Your task to perform on an android device: turn off notifications in google photos Image 0: 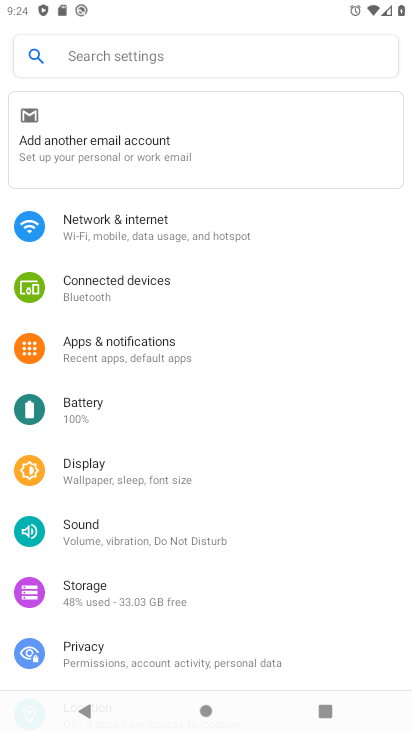
Step 0: press back button
Your task to perform on an android device: turn off notifications in google photos Image 1: 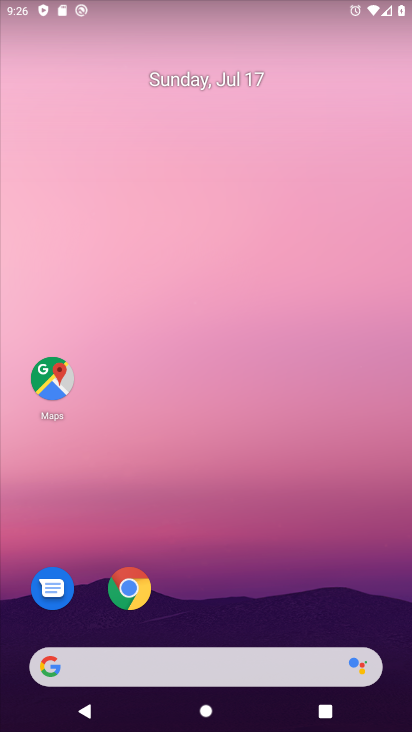
Step 1: drag from (274, 646) to (208, 139)
Your task to perform on an android device: turn off notifications in google photos Image 2: 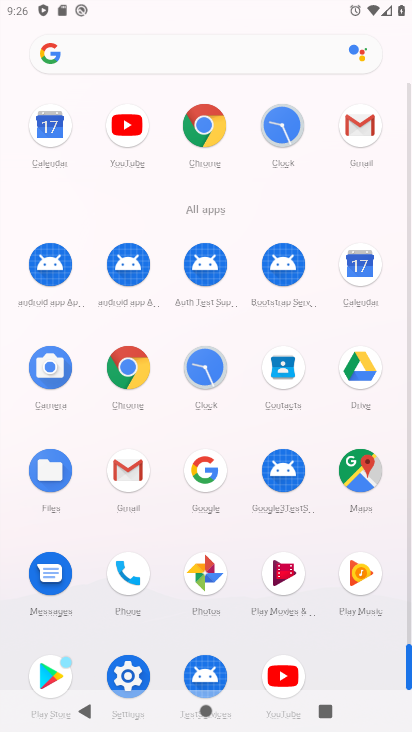
Step 2: click (126, 667)
Your task to perform on an android device: turn off notifications in google photos Image 3: 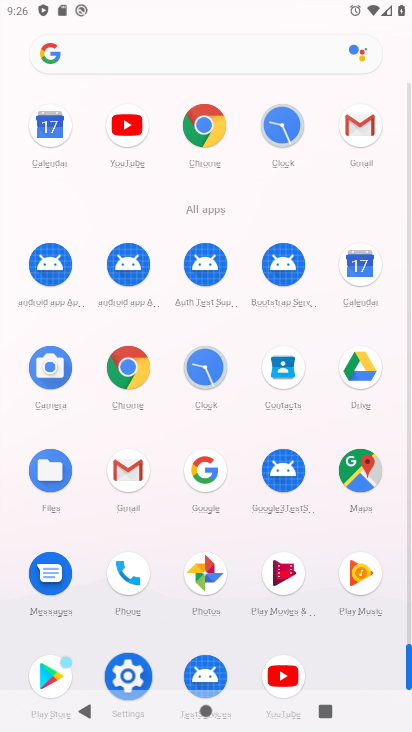
Step 3: click (125, 658)
Your task to perform on an android device: turn off notifications in google photos Image 4: 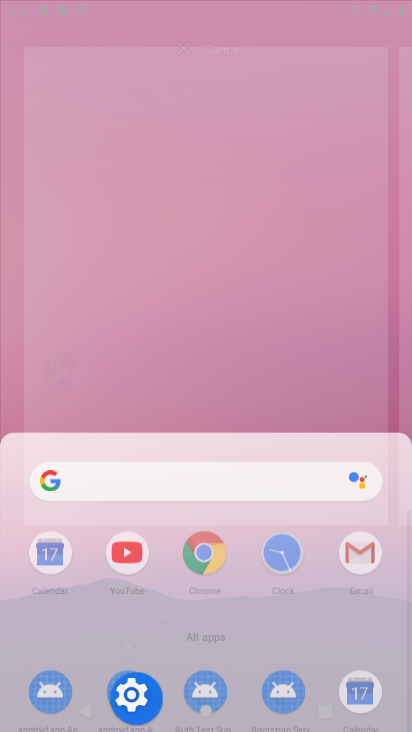
Step 4: click (121, 665)
Your task to perform on an android device: turn off notifications in google photos Image 5: 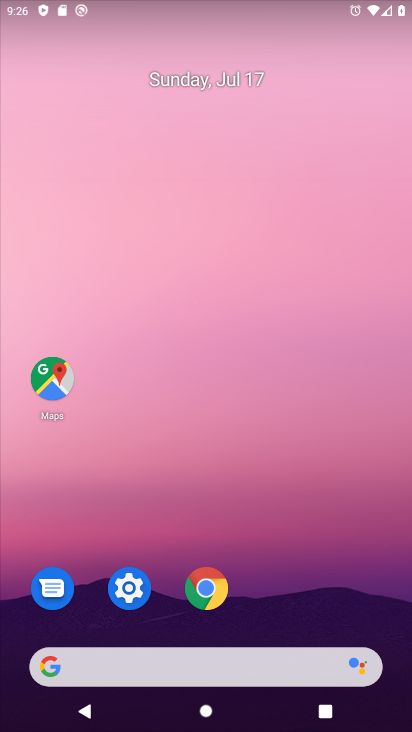
Step 5: drag from (273, 696) to (247, 9)
Your task to perform on an android device: turn off notifications in google photos Image 6: 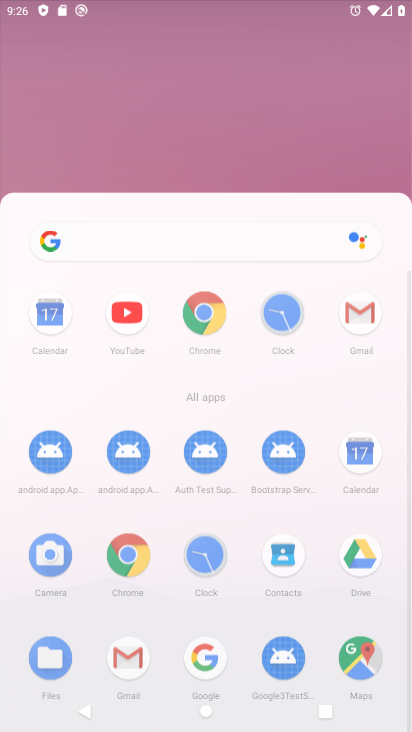
Step 6: drag from (285, 464) to (243, 63)
Your task to perform on an android device: turn off notifications in google photos Image 7: 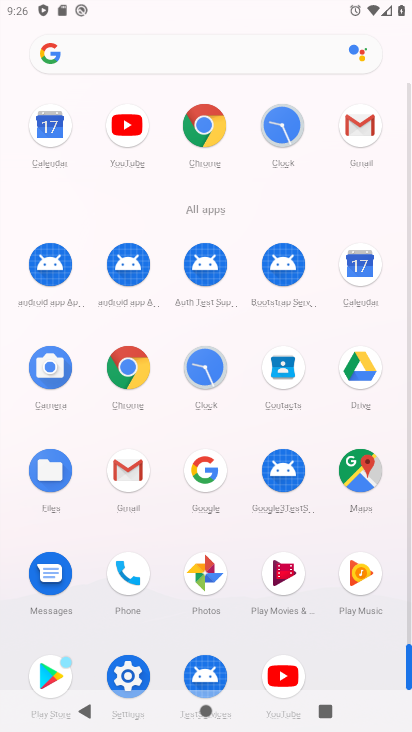
Step 7: drag from (266, 397) to (253, 146)
Your task to perform on an android device: turn off notifications in google photos Image 8: 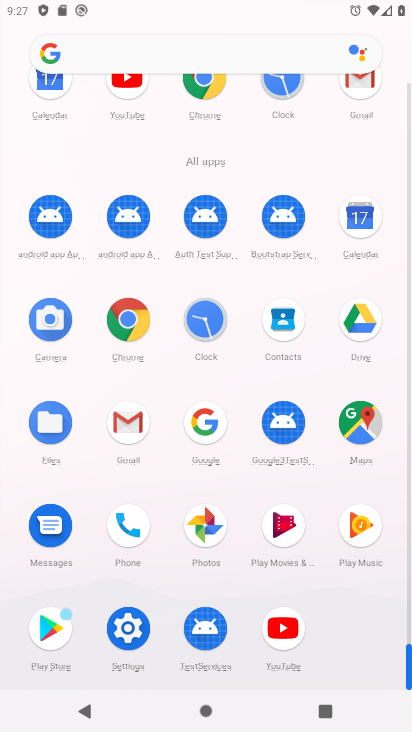
Step 8: click (192, 538)
Your task to perform on an android device: turn off notifications in google photos Image 9: 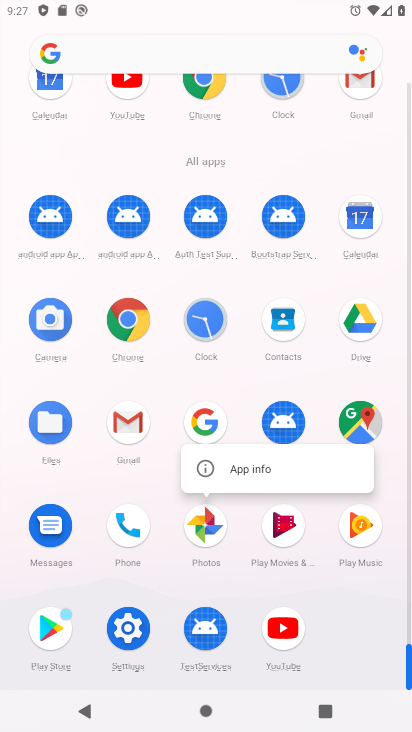
Step 9: click (194, 539)
Your task to perform on an android device: turn off notifications in google photos Image 10: 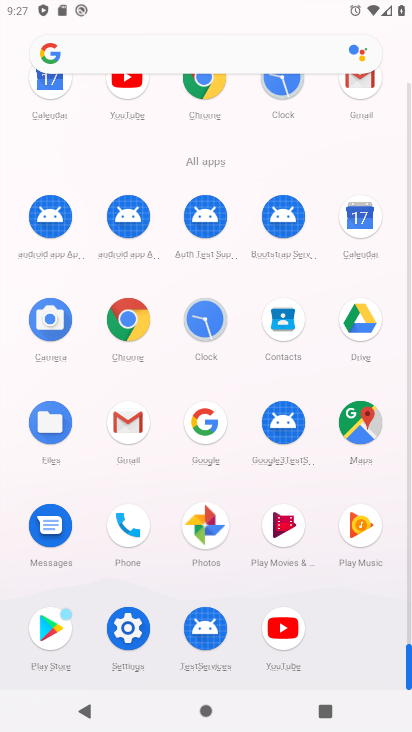
Step 10: click (199, 541)
Your task to perform on an android device: turn off notifications in google photos Image 11: 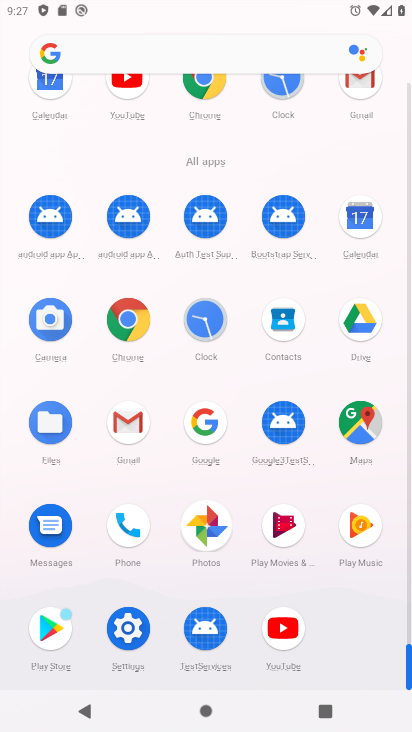
Step 11: click (199, 541)
Your task to perform on an android device: turn off notifications in google photos Image 12: 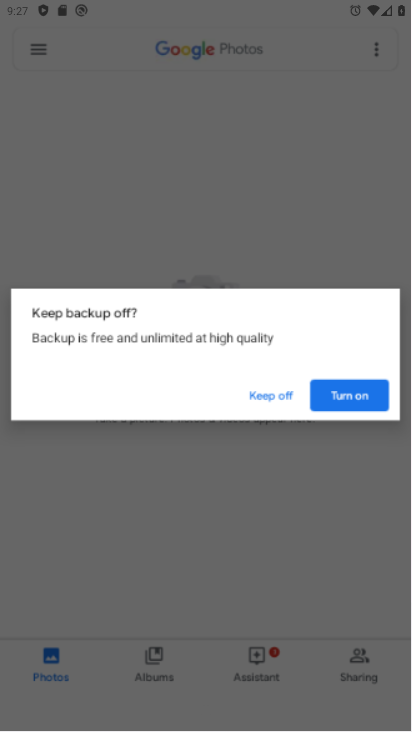
Step 12: click (203, 541)
Your task to perform on an android device: turn off notifications in google photos Image 13: 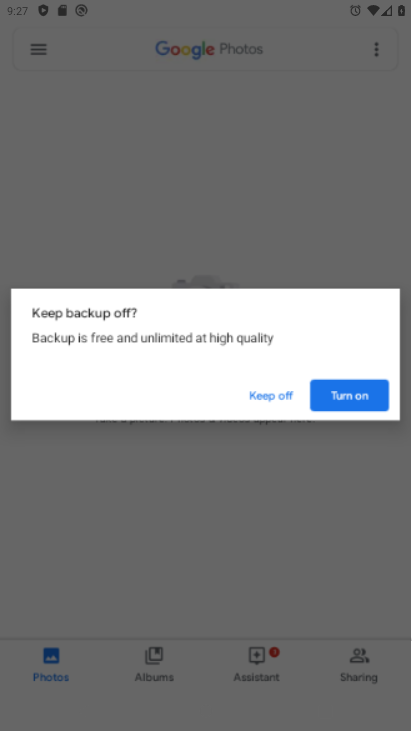
Step 13: click (204, 540)
Your task to perform on an android device: turn off notifications in google photos Image 14: 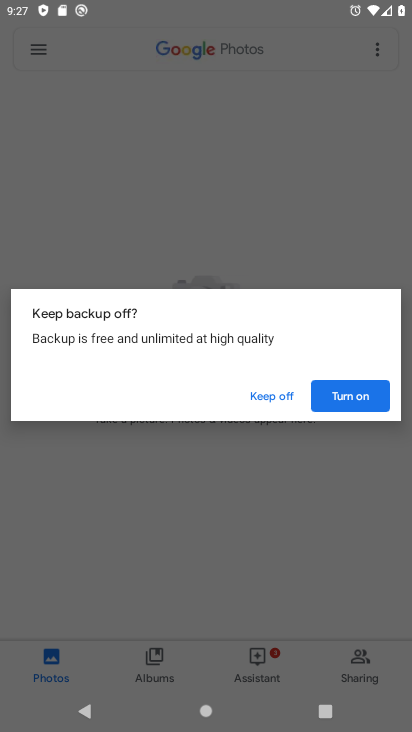
Step 14: click (281, 391)
Your task to perform on an android device: turn off notifications in google photos Image 15: 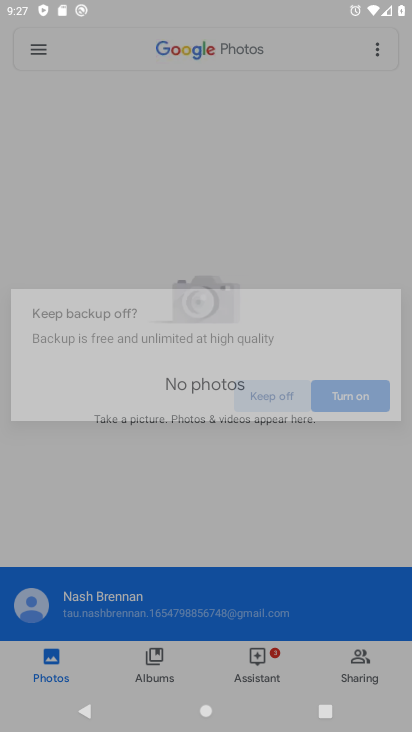
Step 15: click (280, 389)
Your task to perform on an android device: turn off notifications in google photos Image 16: 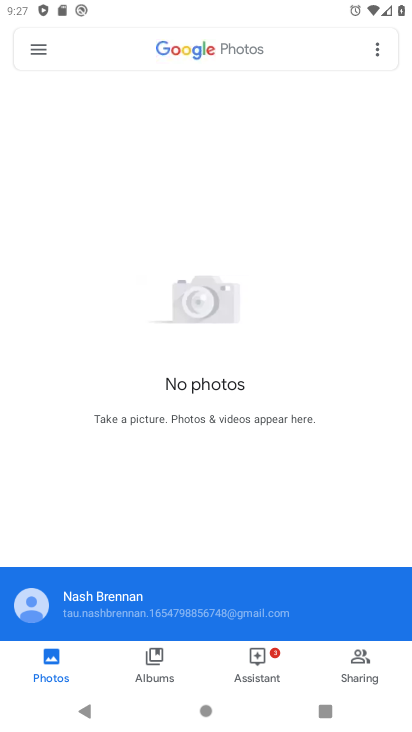
Step 16: click (281, 389)
Your task to perform on an android device: turn off notifications in google photos Image 17: 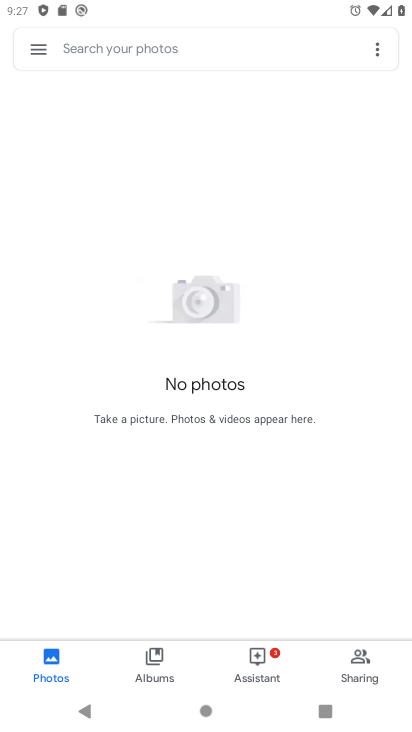
Step 17: click (32, 48)
Your task to perform on an android device: turn off notifications in google photos Image 18: 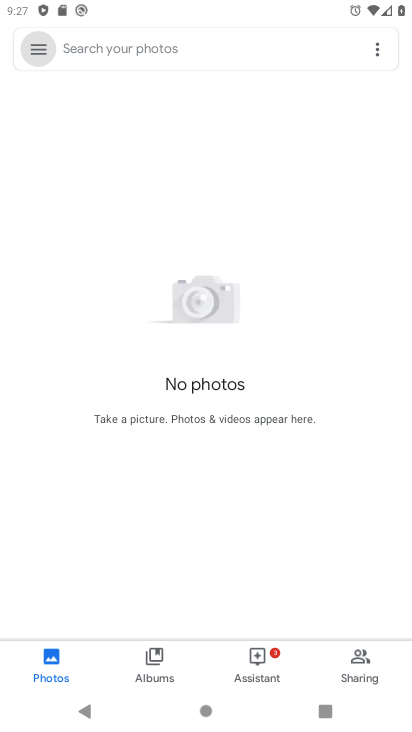
Step 18: click (32, 48)
Your task to perform on an android device: turn off notifications in google photos Image 19: 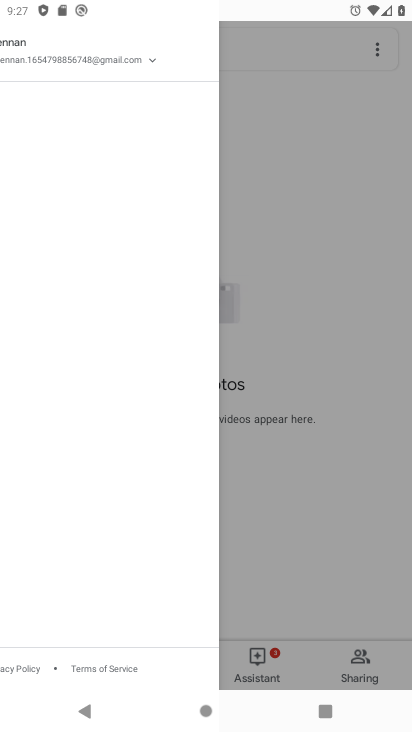
Step 19: click (38, 48)
Your task to perform on an android device: turn off notifications in google photos Image 20: 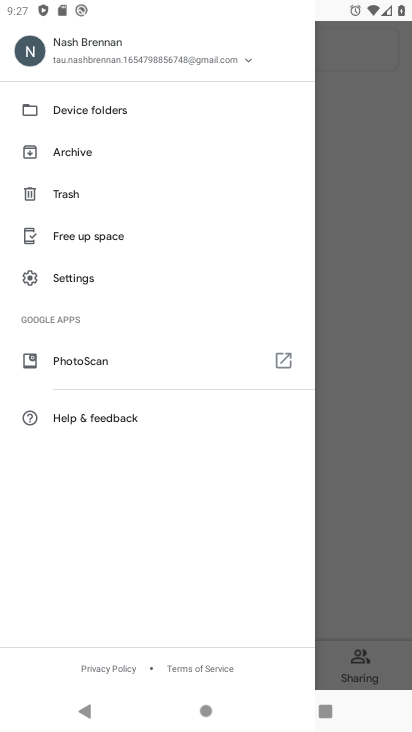
Step 20: click (72, 274)
Your task to perform on an android device: turn off notifications in google photos Image 21: 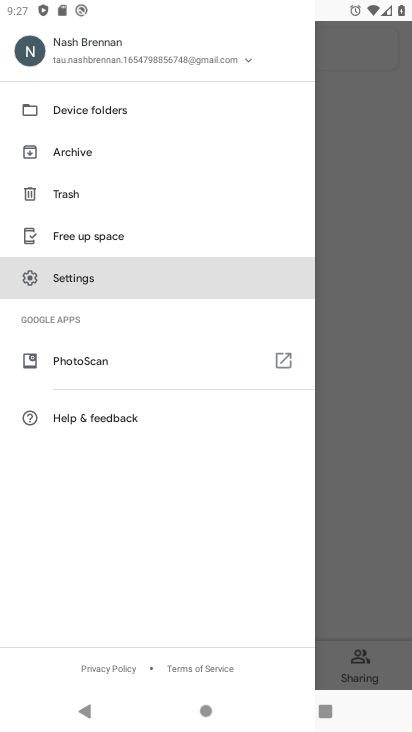
Step 21: click (71, 273)
Your task to perform on an android device: turn off notifications in google photos Image 22: 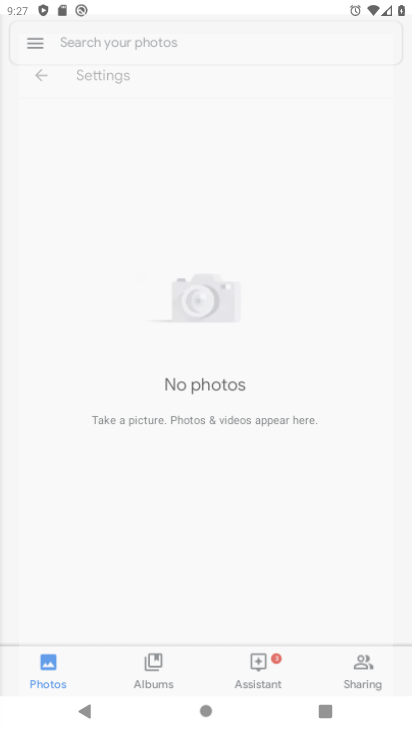
Step 22: click (72, 275)
Your task to perform on an android device: turn off notifications in google photos Image 23: 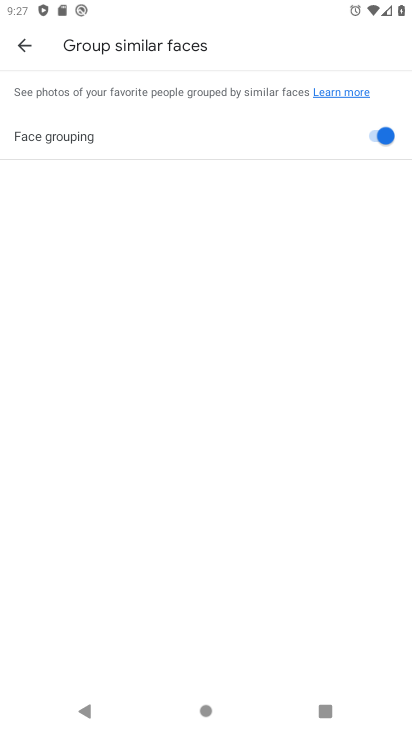
Step 23: click (23, 39)
Your task to perform on an android device: turn off notifications in google photos Image 24: 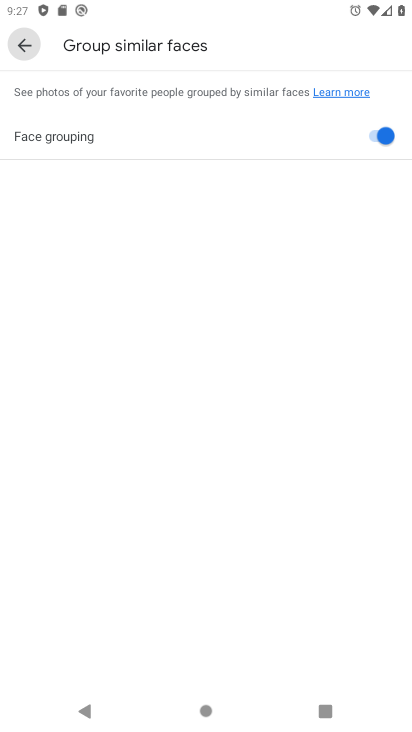
Step 24: click (23, 39)
Your task to perform on an android device: turn off notifications in google photos Image 25: 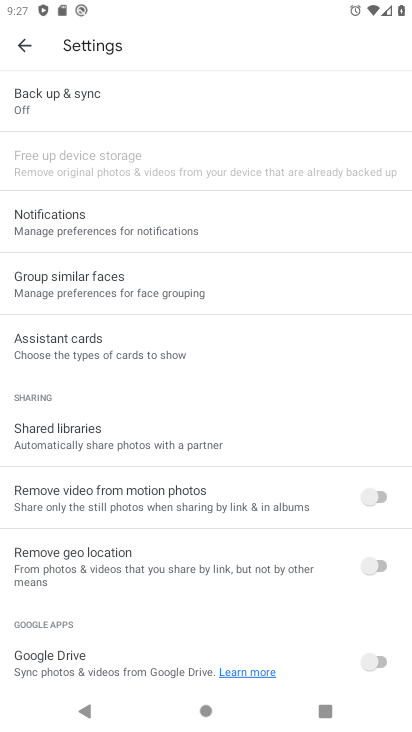
Step 25: click (71, 216)
Your task to perform on an android device: turn off notifications in google photos Image 26: 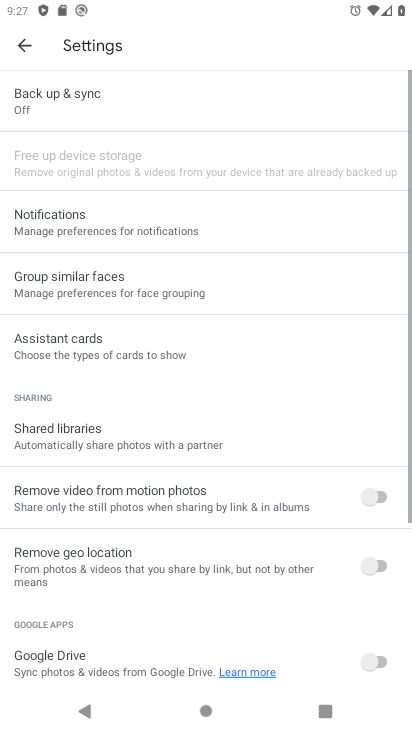
Step 26: click (84, 247)
Your task to perform on an android device: turn off notifications in google photos Image 27: 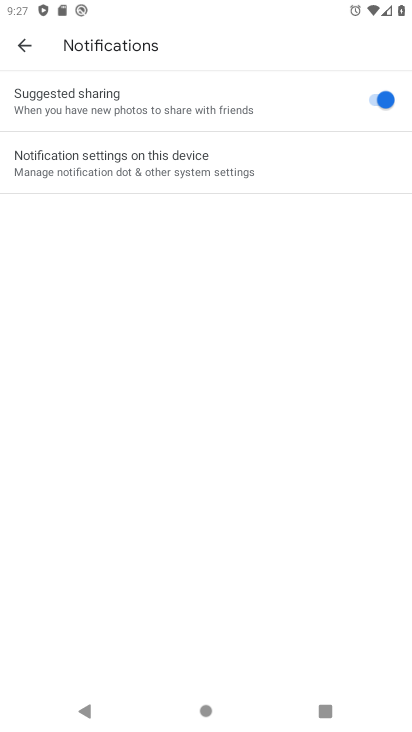
Step 27: click (286, 163)
Your task to perform on an android device: turn off notifications in google photos Image 28: 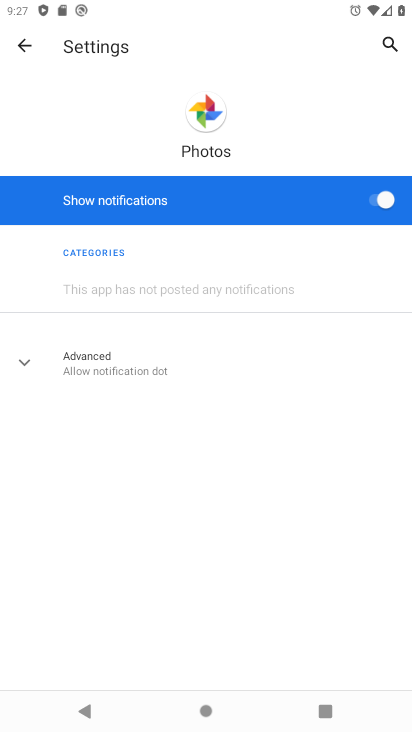
Step 28: click (382, 202)
Your task to perform on an android device: turn off notifications in google photos Image 29: 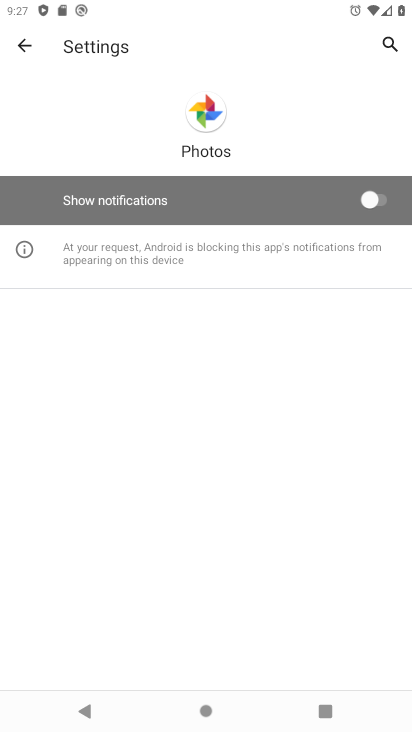
Step 29: task complete